Your task to perform on an android device: View the shopping cart on target. Search for "jbl charge 4" on target, select the first entry, add it to the cart, then select checkout. Image 0: 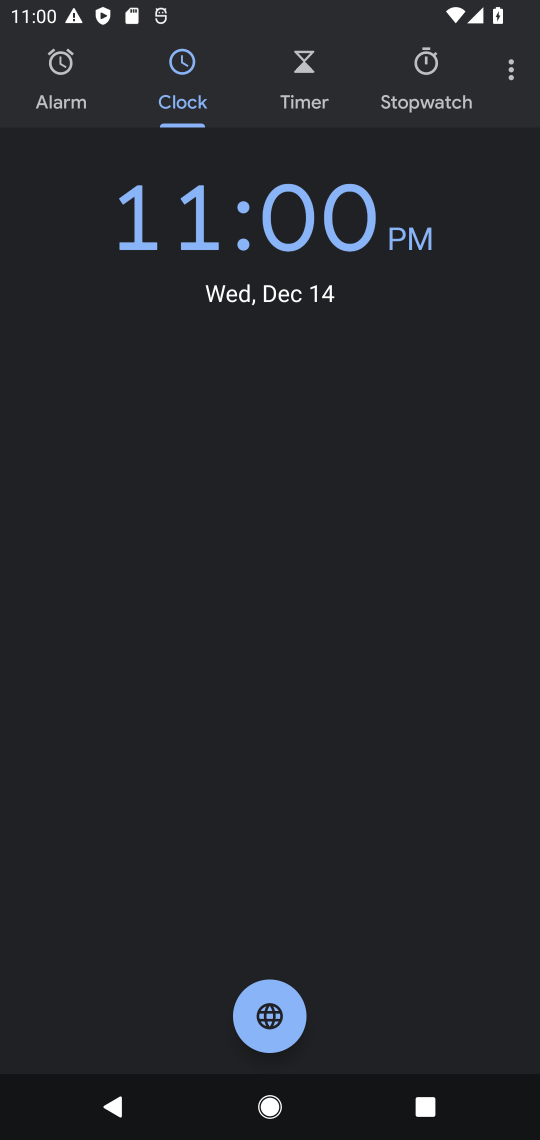
Step 0: press home button
Your task to perform on an android device: View the shopping cart on target. Search for "jbl charge 4" on target, select the first entry, add it to the cart, then select checkout. Image 1: 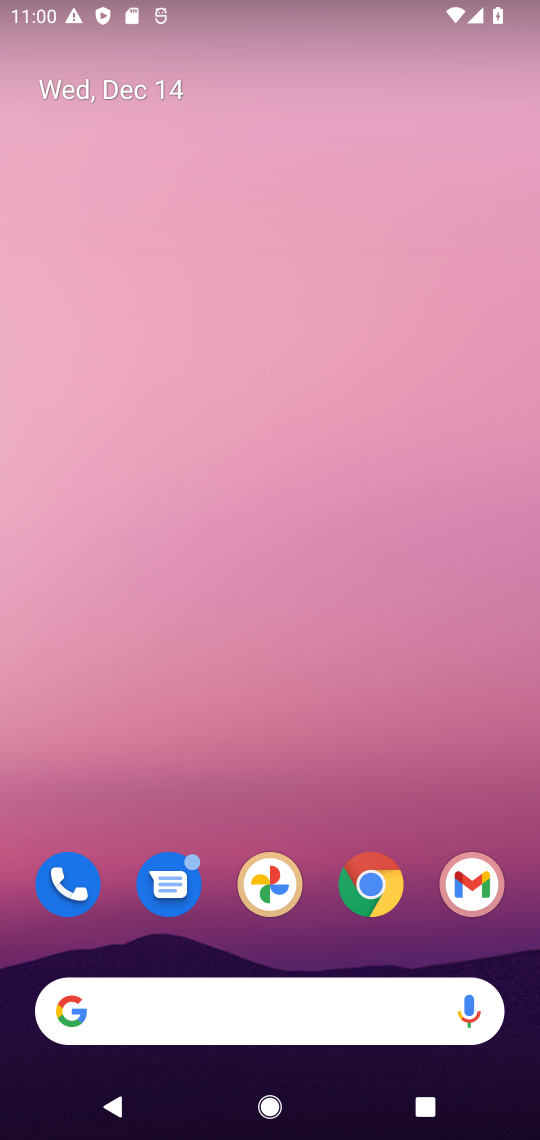
Step 1: click (380, 912)
Your task to perform on an android device: View the shopping cart on target. Search for "jbl charge 4" on target, select the first entry, add it to the cart, then select checkout. Image 2: 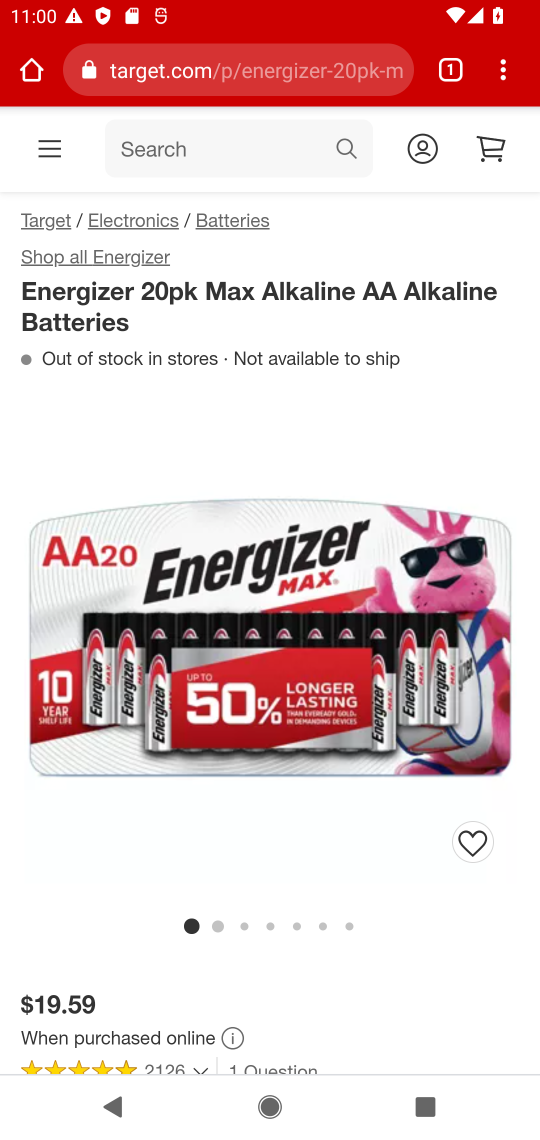
Step 2: click (206, 81)
Your task to perform on an android device: View the shopping cart on target. Search for "jbl charge 4" on target, select the first entry, add it to the cart, then select checkout. Image 3: 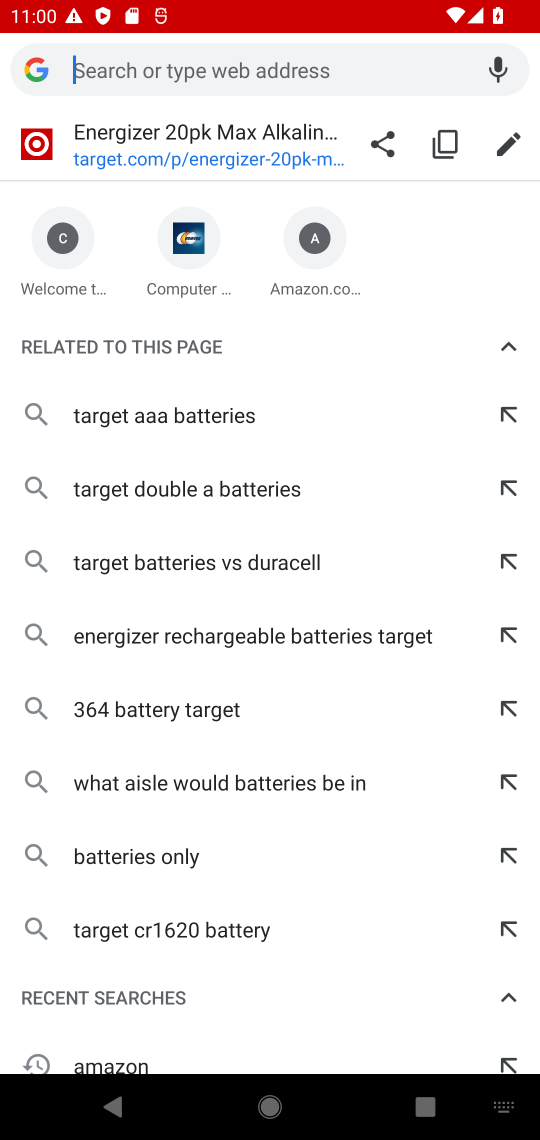
Step 3: type "target"
Your task to perform on an android device: View the shopping cart on target. Search for "jbl charge 4" on target, select the first entry, add it to the cart, then select checkout. Image 4: 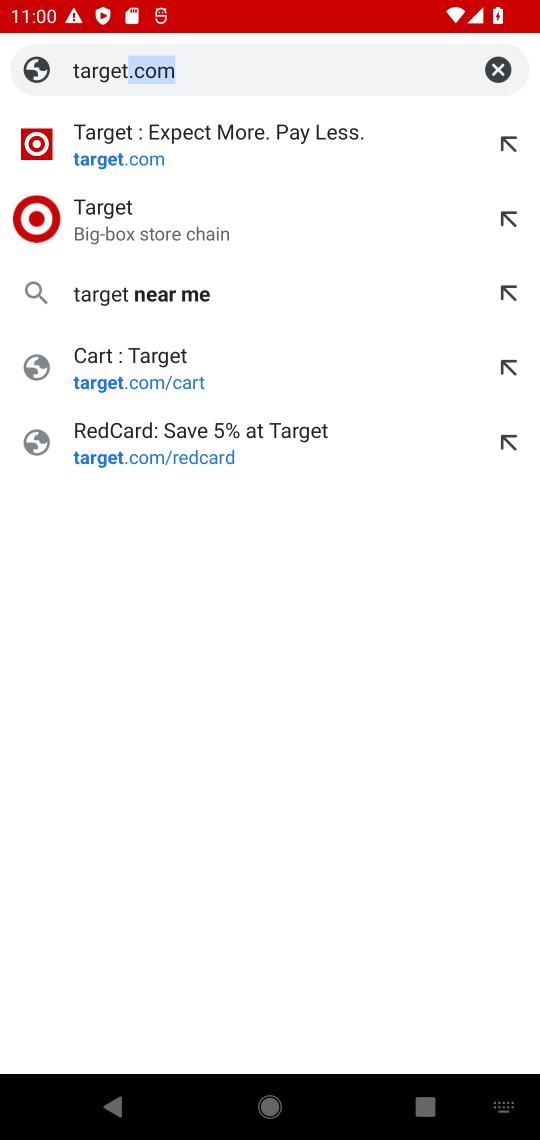
Step 4: click (235, 145)
Your task to perform on an android device: View the shopping cart on target. Search for "jbl charge 4" on target, select the first entry, add it to the cart, then select checkout. Image 5: 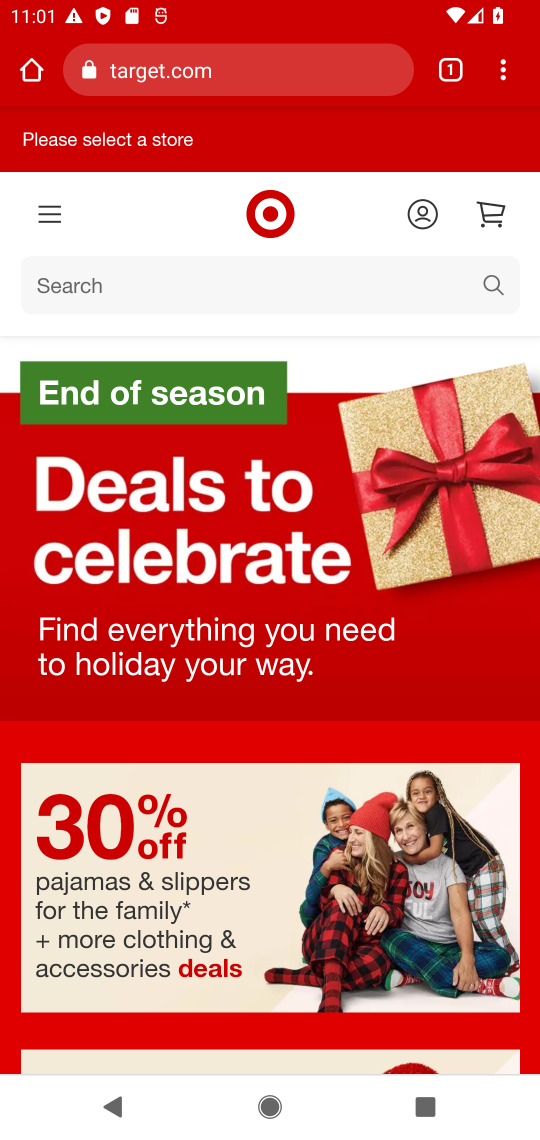
Step 5: click (130, 310)
Your task to perform on an android device: View the shopping cart on target. Search for "jbl charge 4" on target, select the first entry, add it to the cart, then select checkout. Image 6: 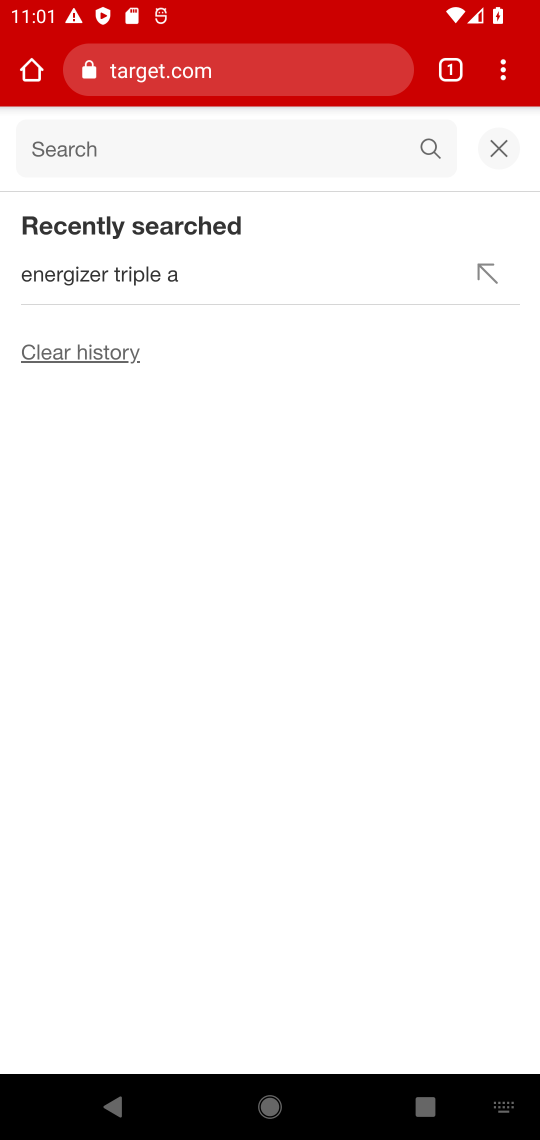
Step 6: click (504, 152)
Your task to perform on an android device: View the shopping cart on target. Search for "jbl charge 4" on target, select the first entry, add it to the cart, then select checkout. Image 7: 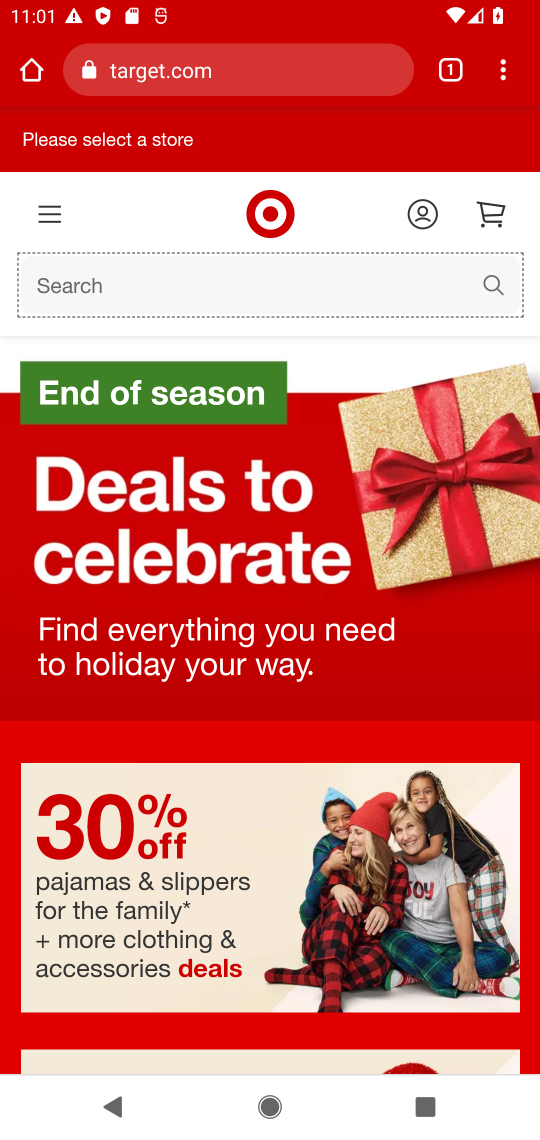
Step 7: click (491, 226)
Your task to perform on an android device: View the shopping cart on target. Search for "jbl charge 4" on target, select the first entry, add it to the cart, then select checkout. Image 8: 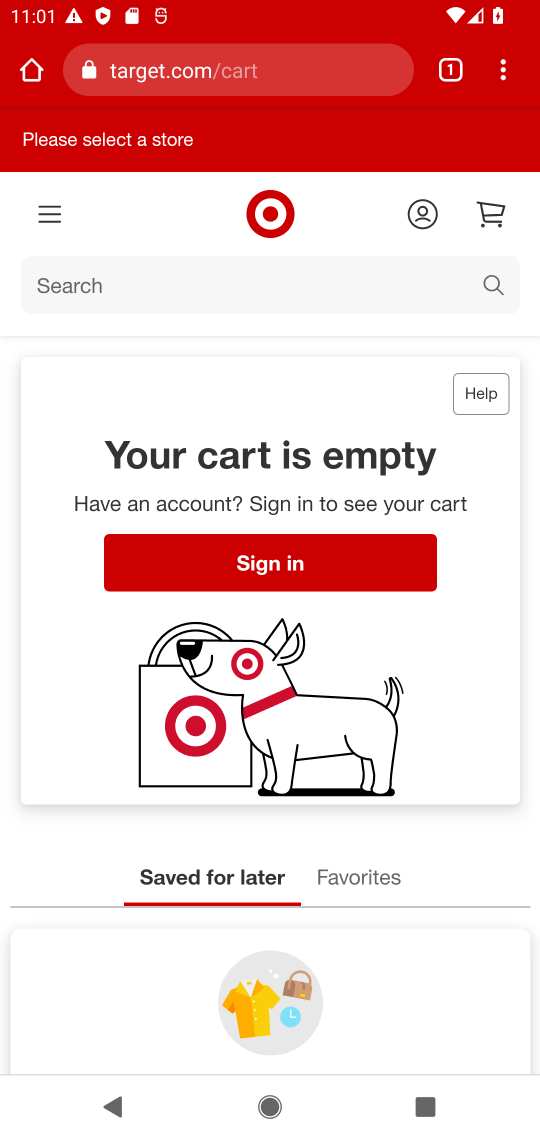
Step 8: click (293, 291)
Your task to perform on an android device: View the shopping cart on target. Search for "jbl charge 4" on target, select the first entry, add it to the cart, then select checkout. Image 9: 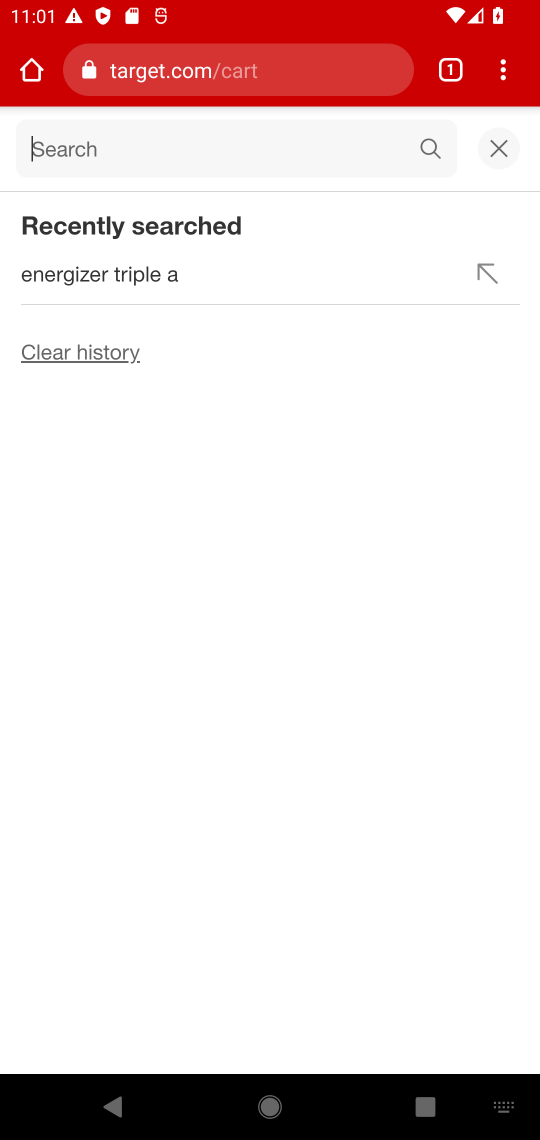
Step 9: type "jbl charge 4"
Your task to perform on an android device: View the shopping cart on target. Search for "jbl charge 4" on target, select the first entry, add it to the cart, then select checkout. Image 10: 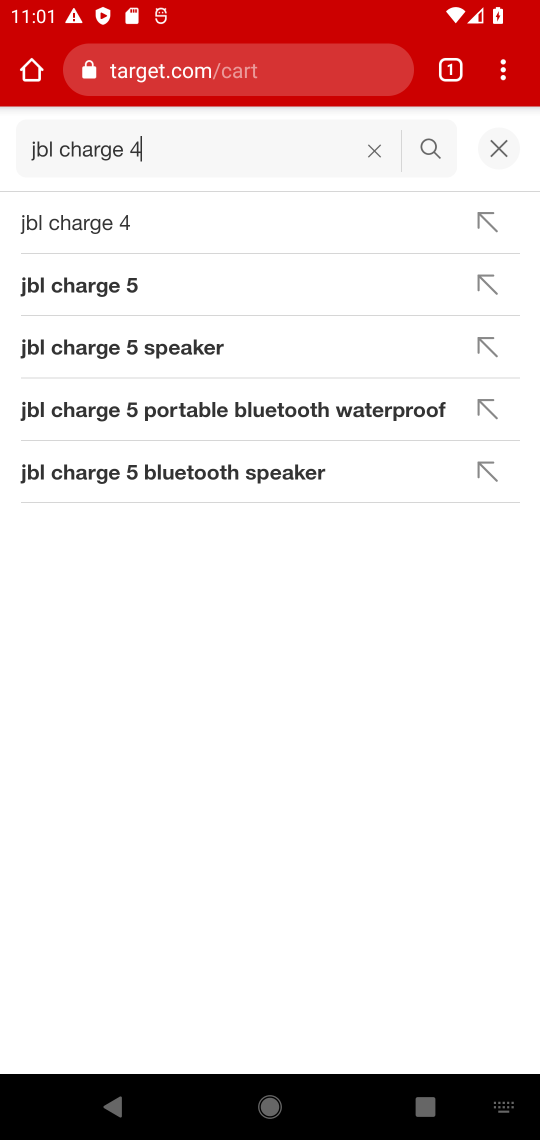
Step 10: press enter
Your task to perform on an android device: View the shopping cart on target. Search for "jbl charge 4" on target, select the first entry, add it to the cart, then select checkout. Image 11: 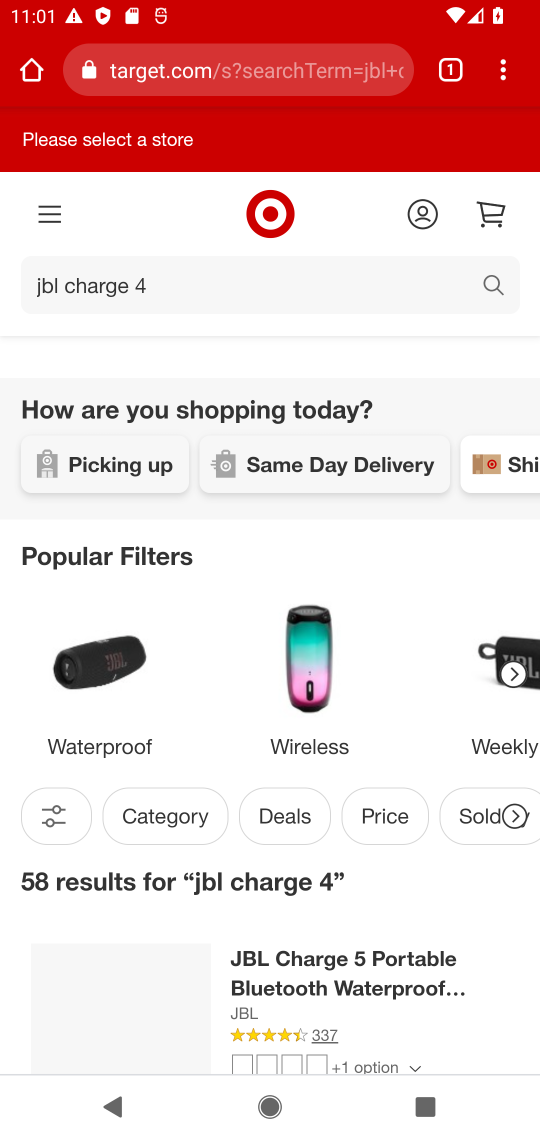
Step 11: task complete